Your task to perform on an android device: Open sound settings Image 0: 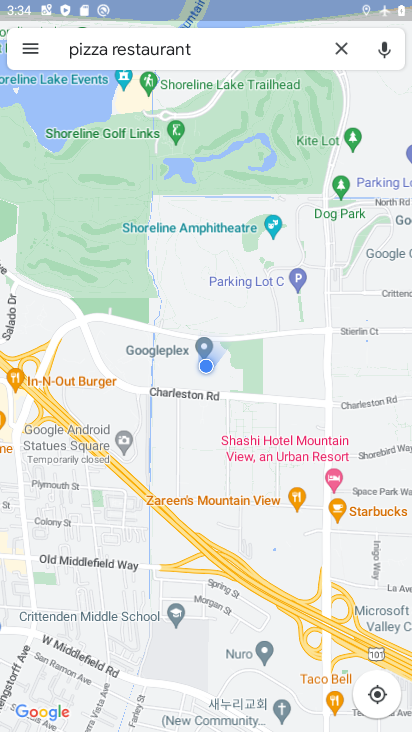
Step 0: press home button
Your task to perform on an android device: Open sound settings Image 1: 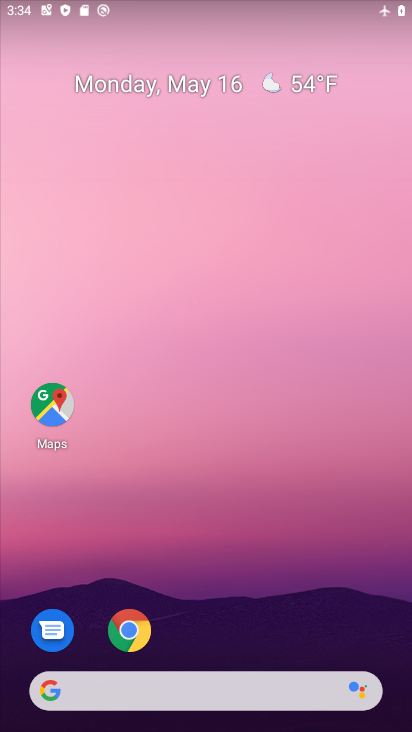
Step 1: drag from (219, 643) to (199, 56)
Your task to perform on an android device: Open sound settings Image 2: 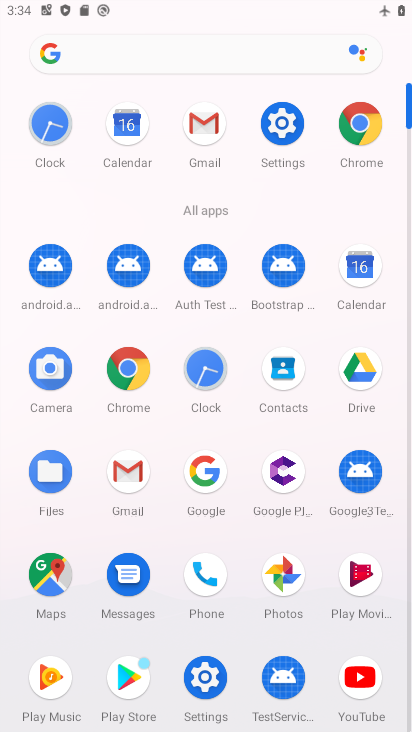
Step 2: click (284, 128)
Your task to perform on an android device: Open sound settings Image 3: 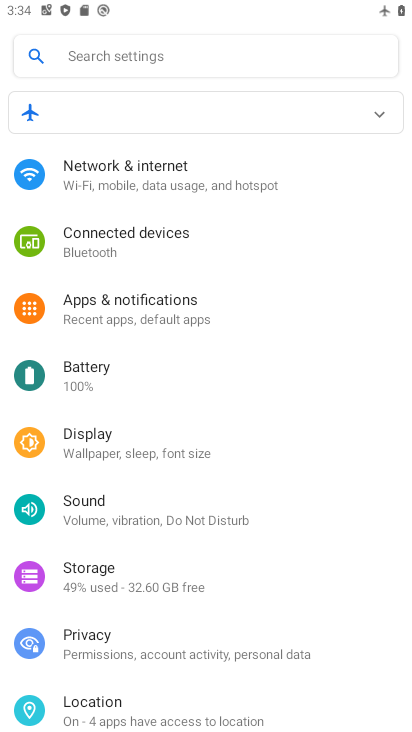
Step 3: click (184, 506)
Your task to perform on an android device: Open sound settings Image 4: 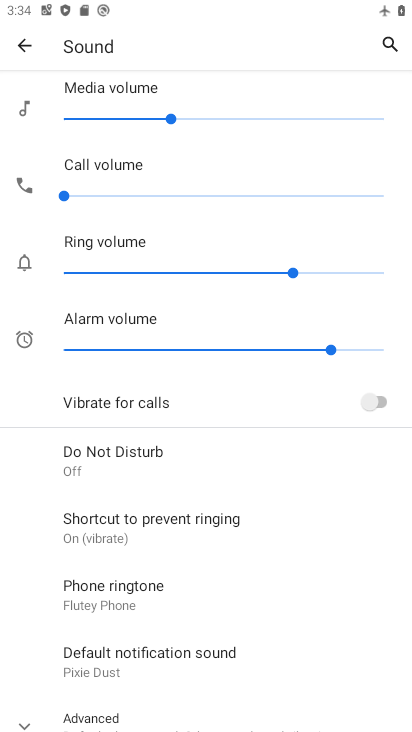
Step 4: task complete